Your task to perform on an android device: Go to location settings Image 0: 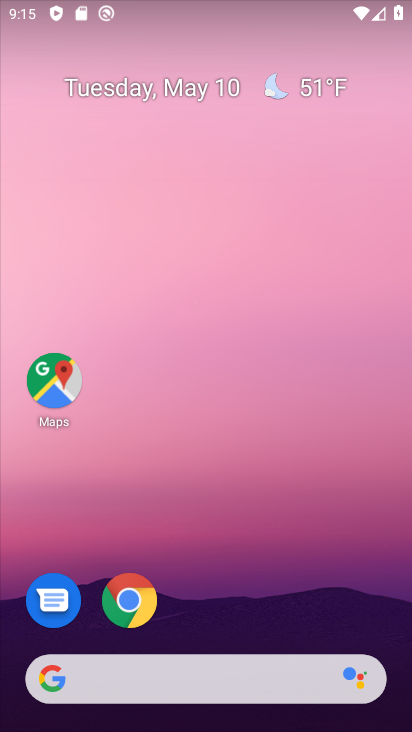
Step 0: drag from (244, 372) to (229, 67)
Your task to perform on an android device: Go to location settings Image 1: 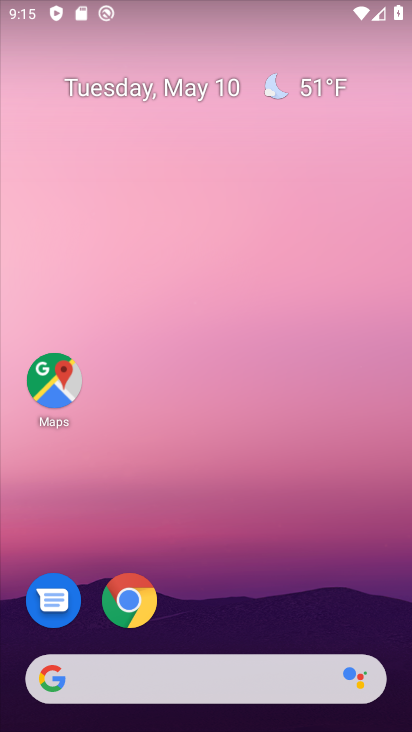
Step 1: drag from (274, 605) to (264, 41)
Your task to perform on an android device: Go to location settings Image 2: 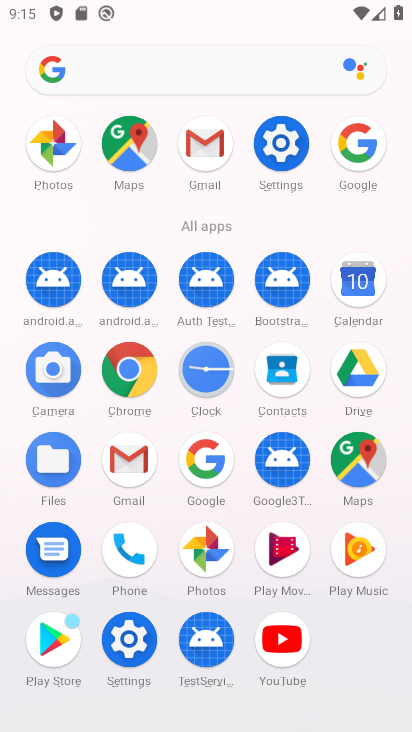
Step 2: click (278, 146)
Your task to perform on an android device: Go to location settings Image 3: 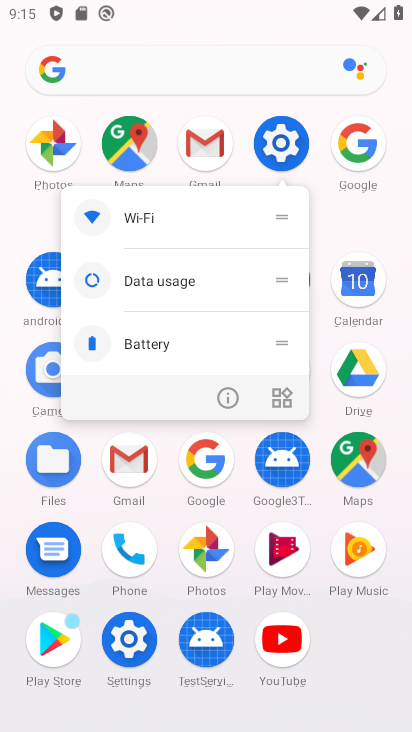
Step 3: click (278, 147)
Your task to perform on an android device: Go to location settings Image 4: 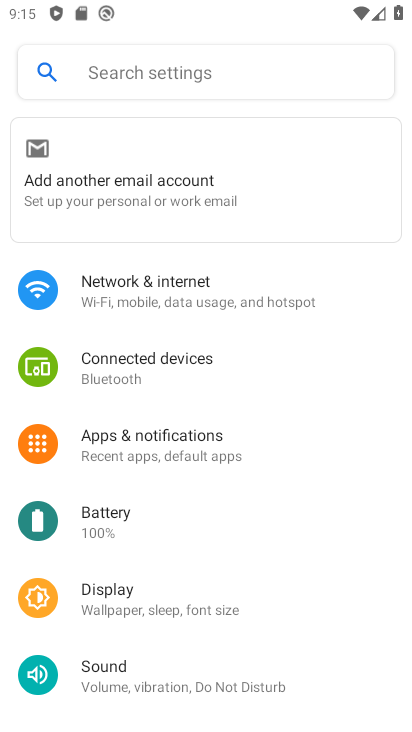
Step 4: drag from (260, 614) to (232, 247)
Your task to perform on an android device: Go to location settings Image 5: 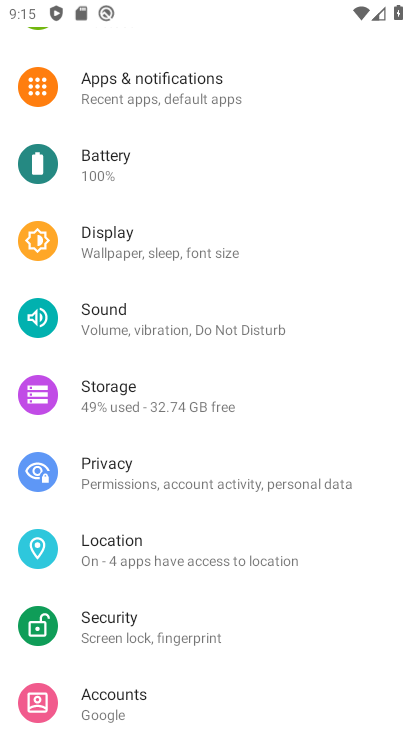
Step 5: click (176, 559)
Your task to perform on an android device: Go to location settings Image 6: 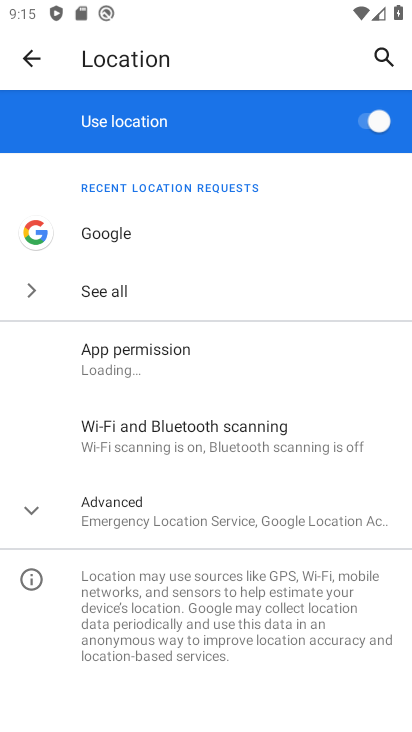
Step 6: task complete